Your task to perform on an android device: Open settings on Google Maps Image 0: 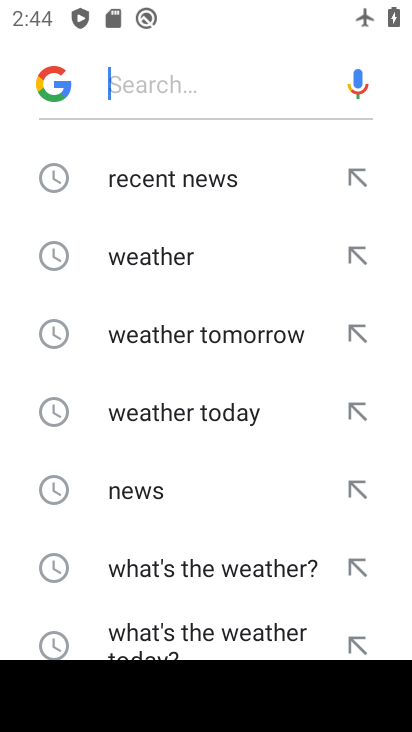
Step 0: press home button
Your task to perform on an android device: Open settings on Google Maps Image 1: 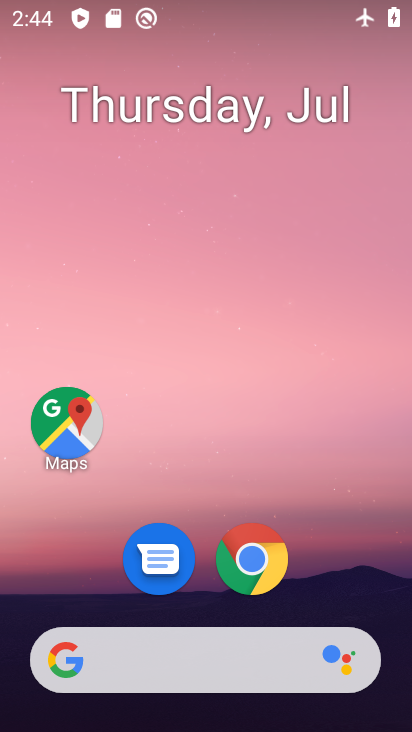
Step 1: drag from (270, 589) to (290, 136)
Your task to perform on an android device: Open settings on Google Maps Image 2: 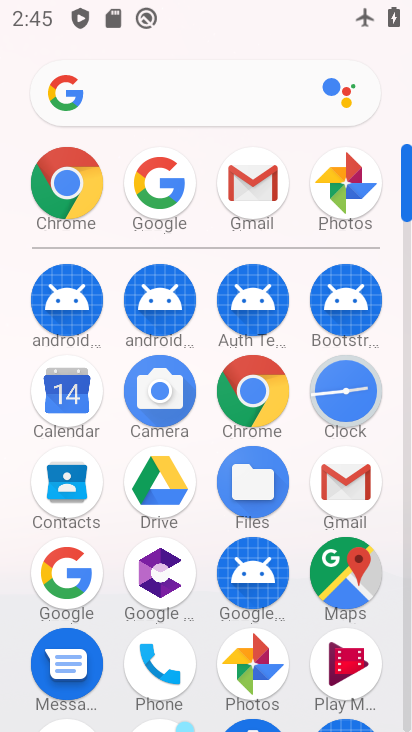
Step 2: click (336, 564)
Your task to perform on an android device: Open settings on Google Maps Image 3: 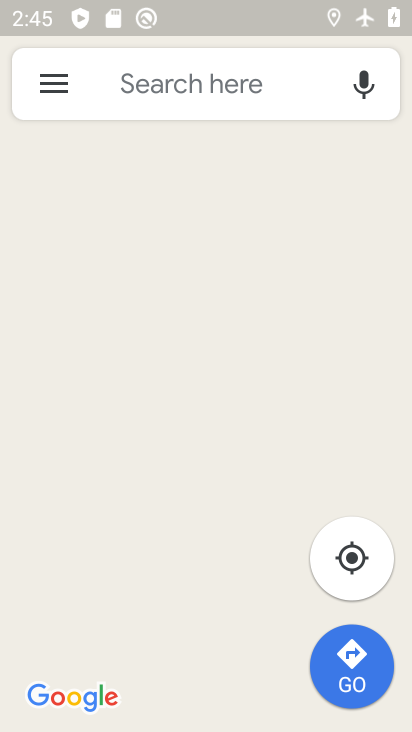
Step 3: click (48, 90)
Your task to perform on an android device: Open settings on Google Maps Image 4: 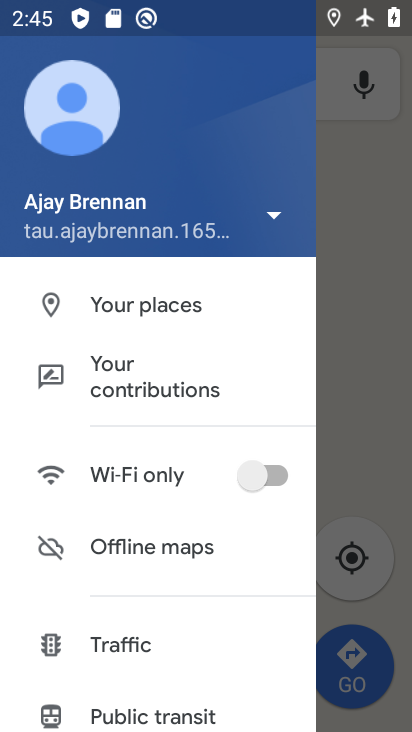
Step 4: drag from (181, 620) to (152, 15)
Your task to perform on an android device: Open settings on Google Maps Image 5: 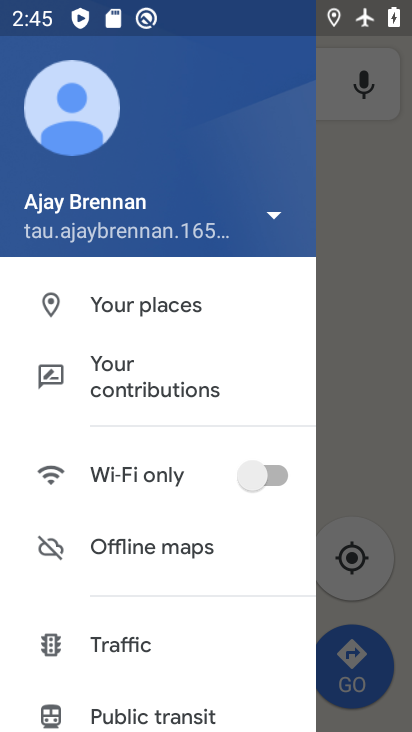
Step 5: drag from (140, 405) to (187, 103)
Your task to perform on an android device: Open settings on Google Maps Image 6: 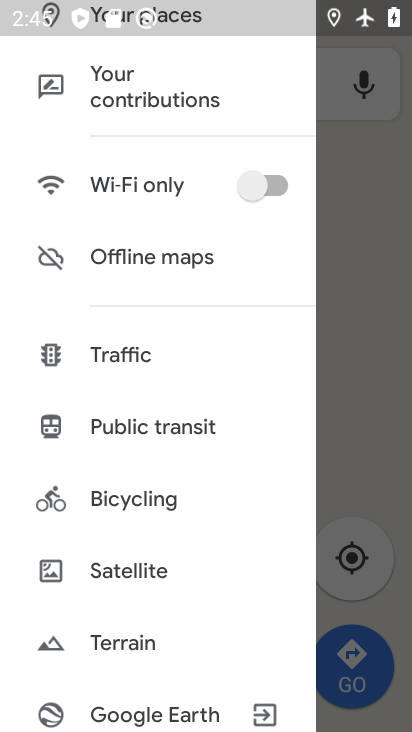
Step 6: drag from (97, 587) to (155, 244)
Your task to perform on an android device: Open settings on Google Maps Image 7: 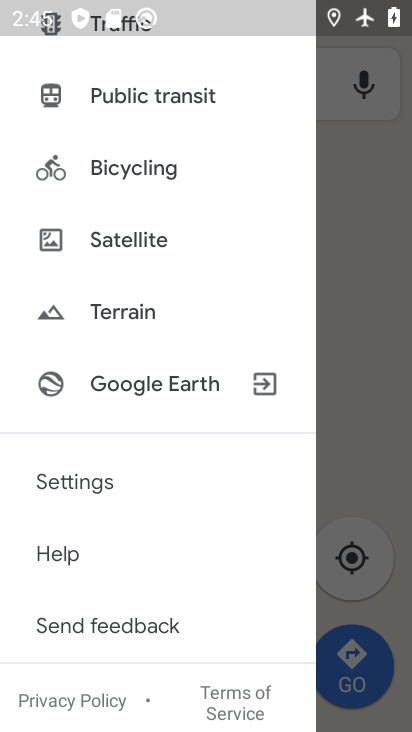
Step 7: click (94, 478)
Your task to perform on an android device: Open settings on Google Maps Image 8: 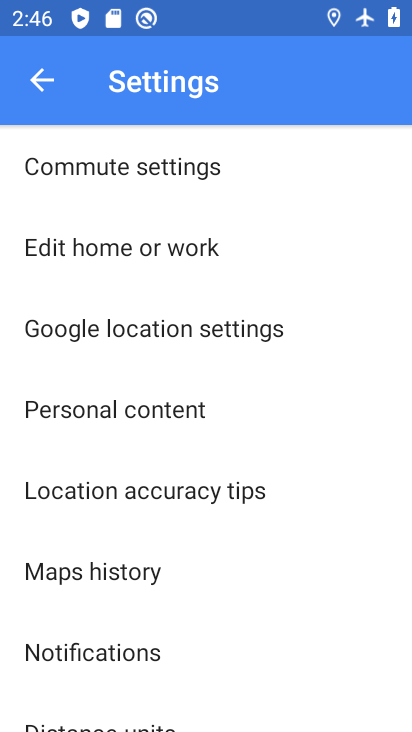
Step 8: task complete